Your task to perform on an android device: Go to accessibility settings Image 0: 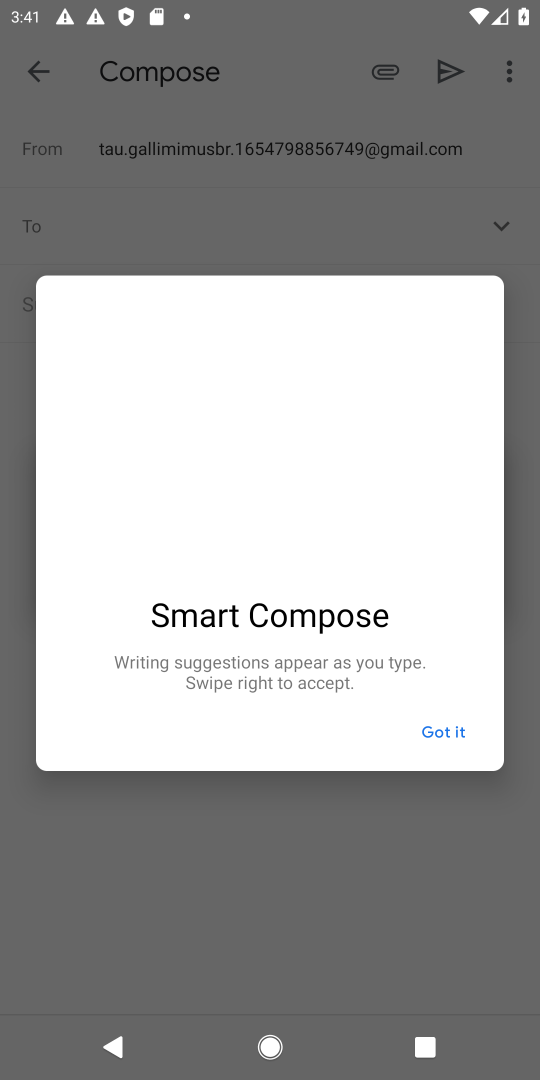
Step 0: press home button
Your task to perform on an android device: Go to accessibility settings Image 1: 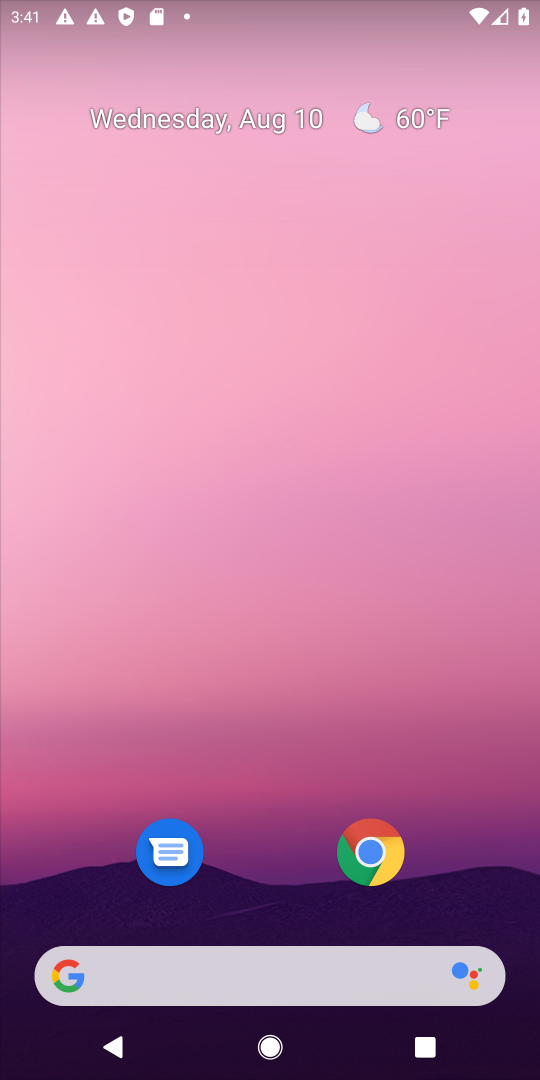
Step 1: drag from (252, 712) to (183, 139)
Your task to perform on an android device: Go to accessibility settings Image 2: 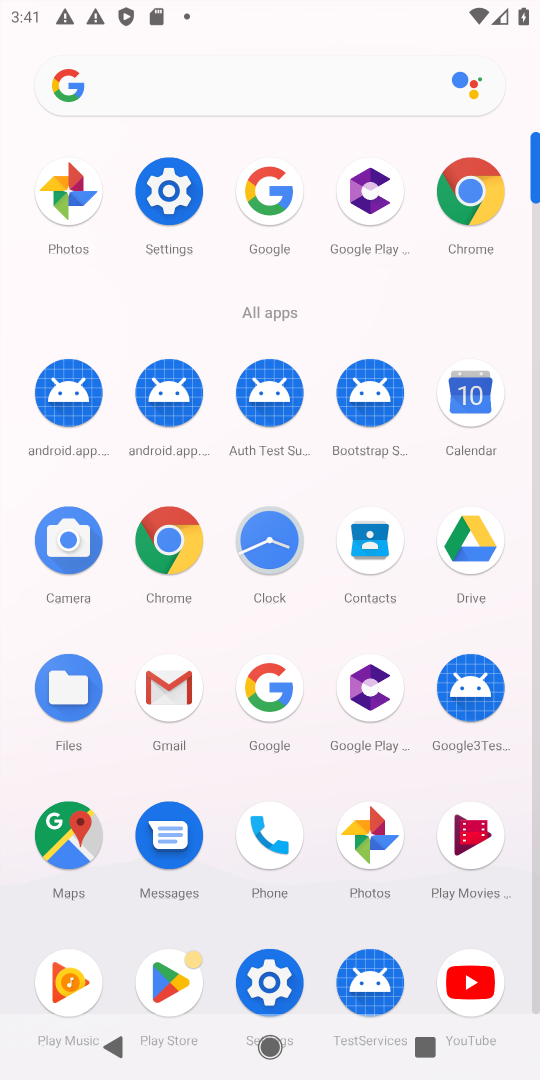
Step 2: click (245, 982)
Your task to perform on an android device: Go to accessibility settings Image 3: 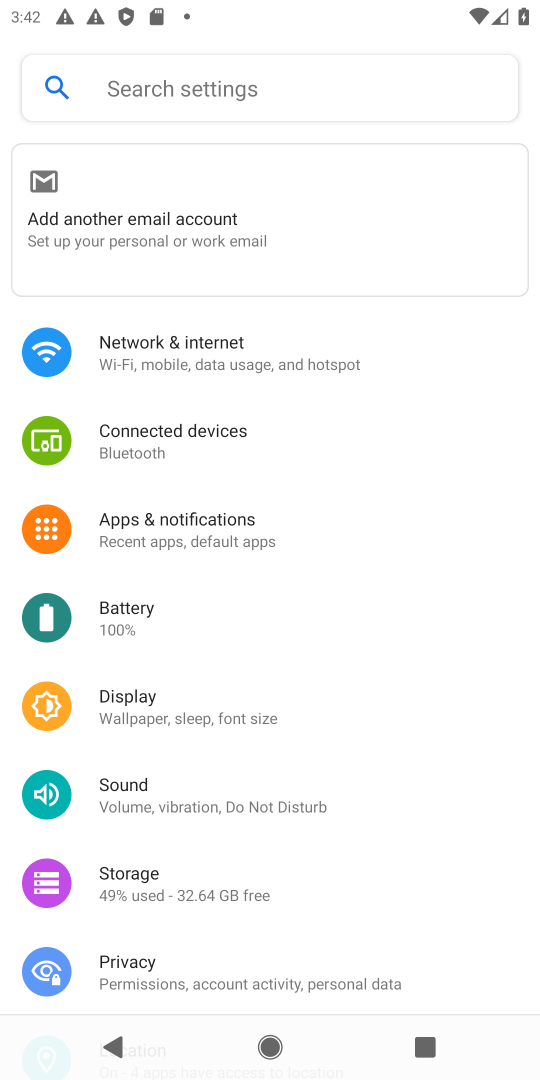
Step 3: drag from (399, 923) to (444, 381)
Your task to perform on an android device: Go to accessibility settings Image 4: 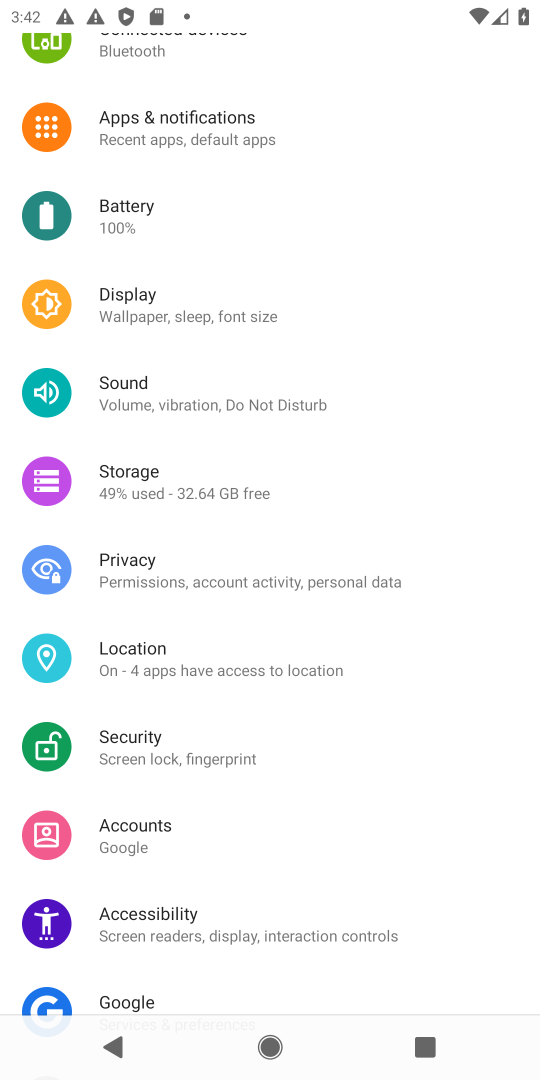
Step 4: click (120, 941)
Your task to perform on an android device: Go to accessibility settings Image 5: 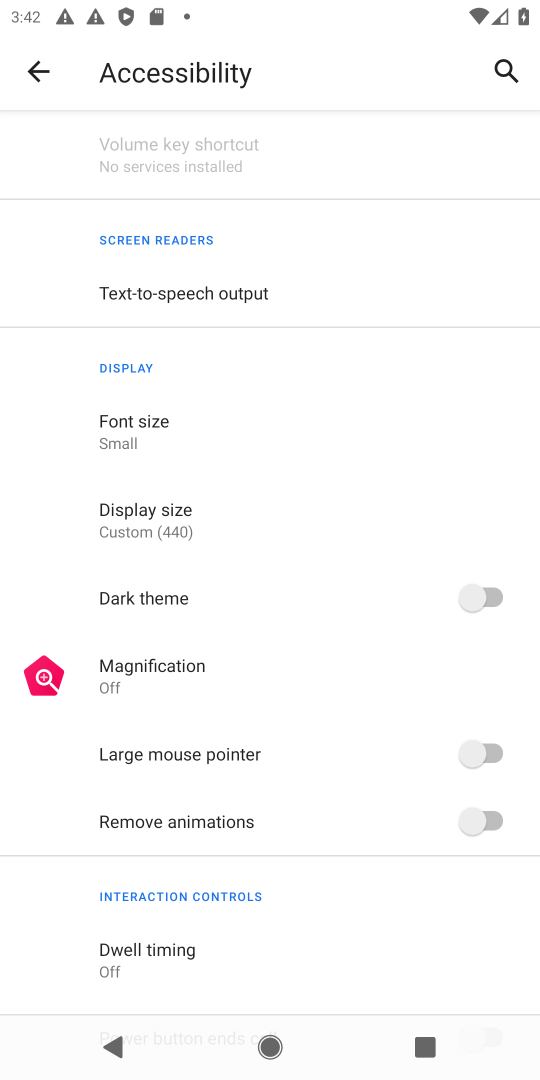
Step 5: task complete